Your task to perform on an android device: open device folders in google photos Image 0: 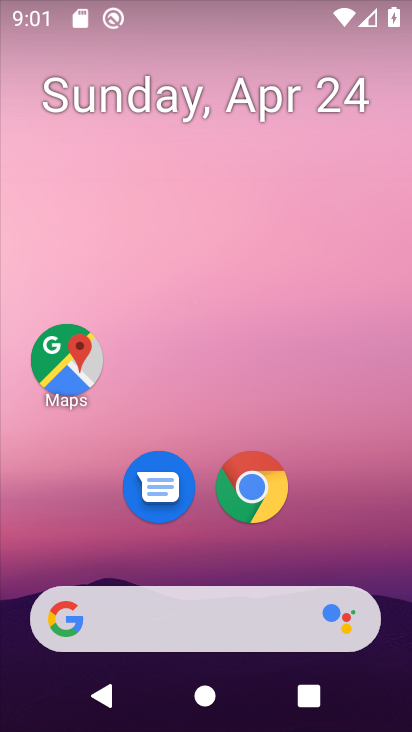
Step 0: drag from (335, 448) to (294, 114)
Your task to perform on an android device: open device folders in google photos Image 1: 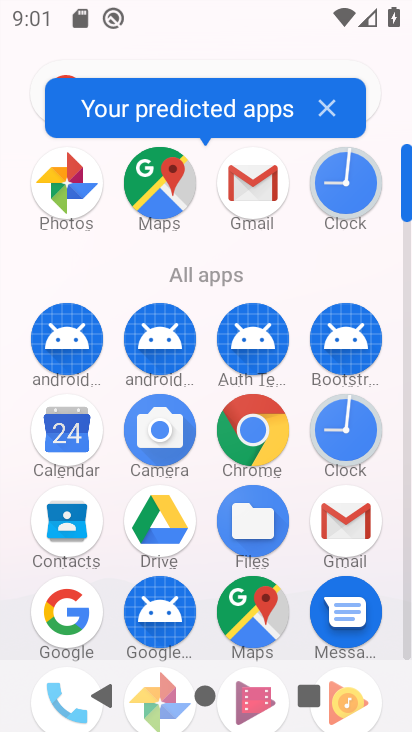
Step 1: click (404, 597)
Your task to perform on an android device: open device folders in google photos Image 2: 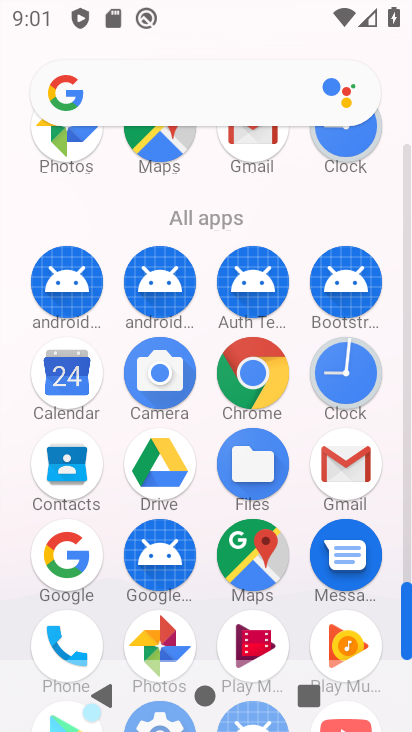
Step 2: drag from (363, 725) to (321, 723)
Your task to perform on an android device: open device folders in google photos Image 3: 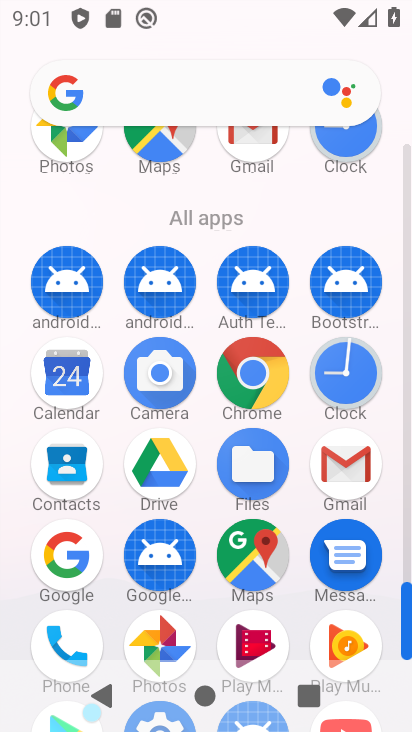
Step 3: click (174, 622)
Your task to perform on an android device: open device folders in google photos Image 4: 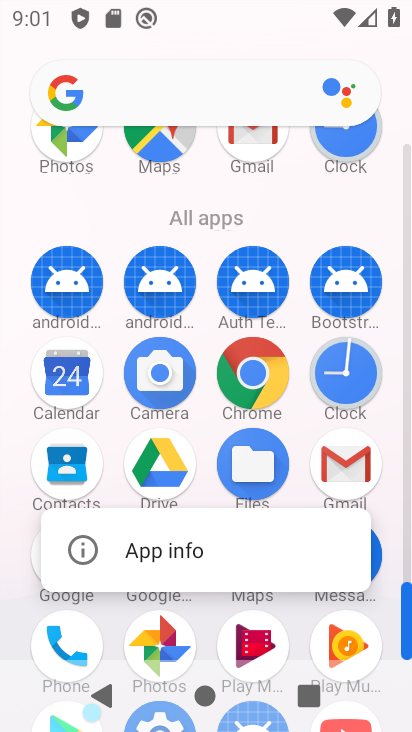
Step 4: click (161, 627)
Your task to perform on an android device: open device folders in google photos Image 5: 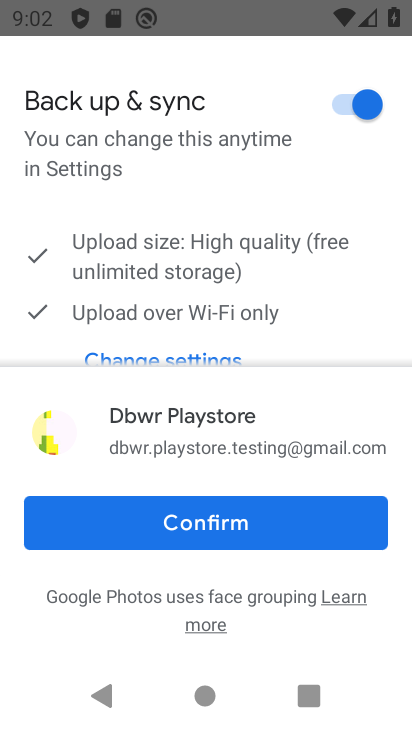
Step 5: press home button
Your task to perform on an android device: open device folders in google photos Image 6: 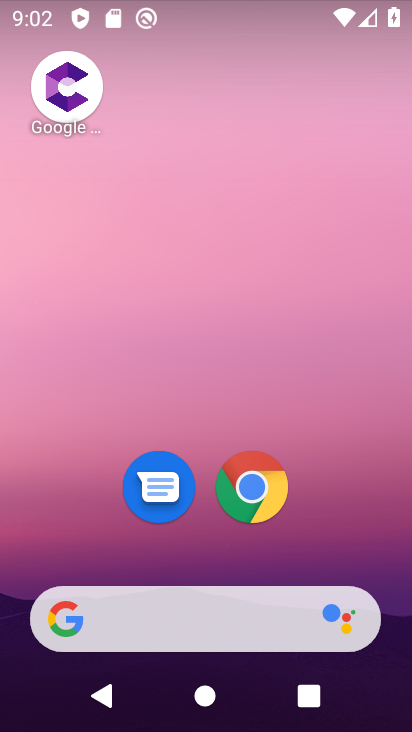
Step 6: drag from (347, 365) to (338, 62)
Your task to perform on an android device: open device folders in google photos Image 7: 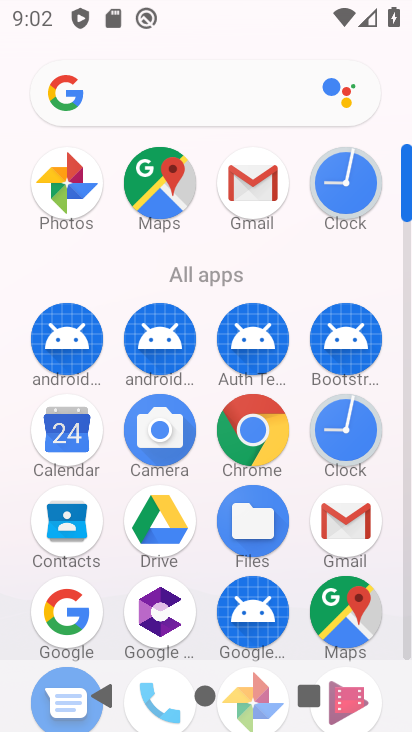
Step 7: click (403, 483)
Your task to perform on an android device: open device folders in google photos Image 8: 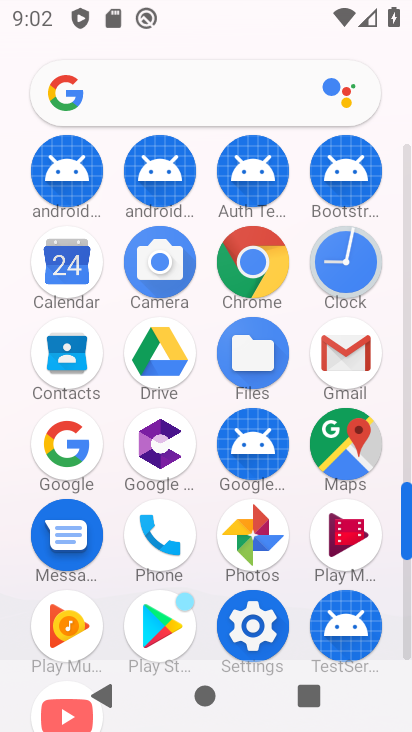
Step 8: click (248, 534)
Your task to perform on an android device: open device folders in google photos Image 9: 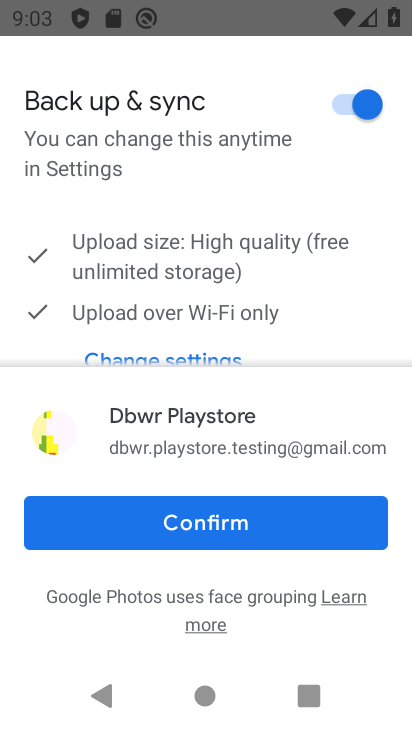
Step 9: click (170, 520)
Your task to perform on an android device: open device folders in google photos Image 10: 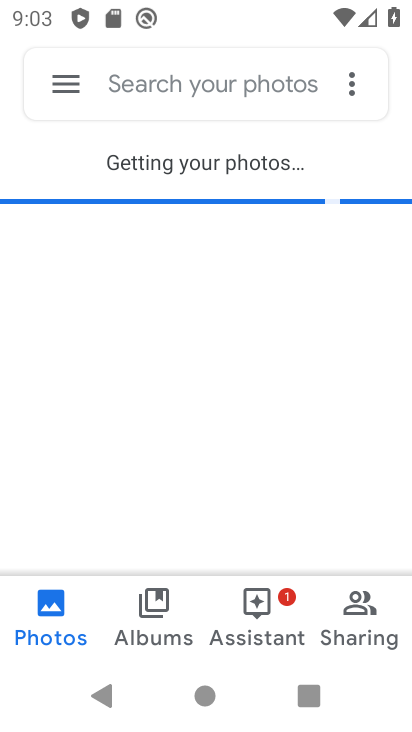
Step 10: click (145, 613)
Your task to perform on an android device: open device folders in google photos Image 11: 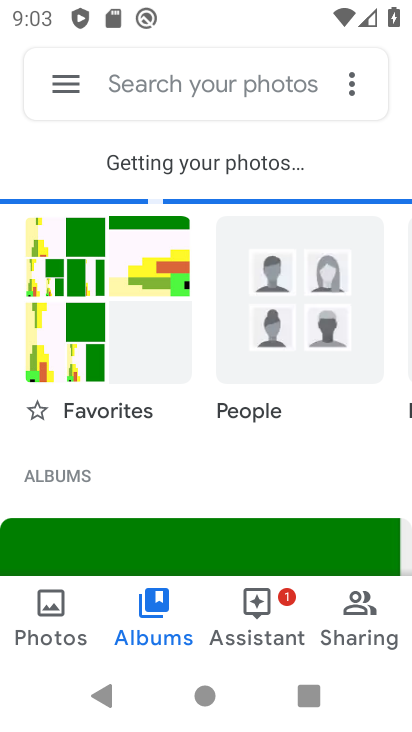
Step 11: task complete